Your task to perform on an android device: change the clock style Image 0: 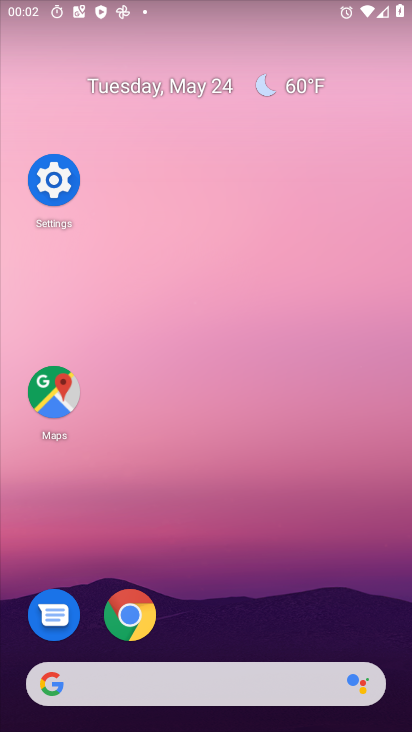
Step 0: drag from (224, 614) to (288, 92)
Your task to perform on an android device: change the clock style Image 1: 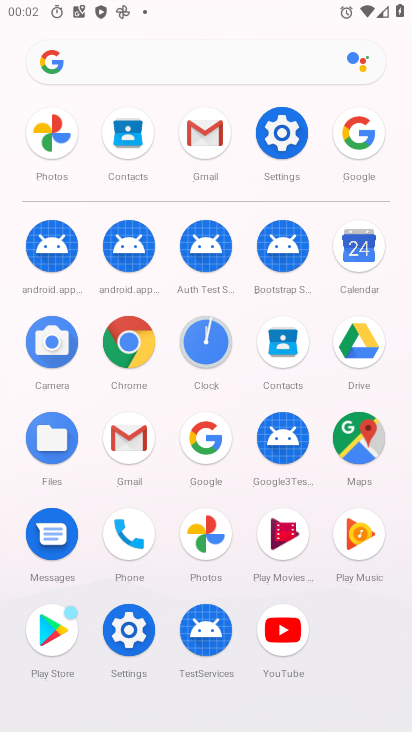
Step 1: click (207, 333)
Your task to perform on an android device: change the clock style Image 2: 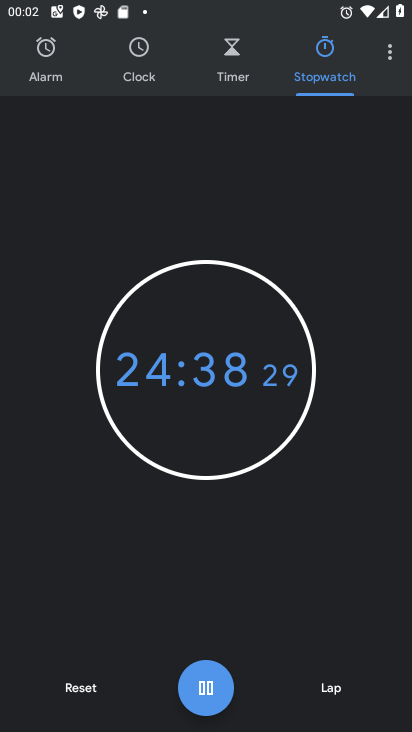
Step 2: click (386, 53)
Your task to perform on an android device: change the clock style Image 3: 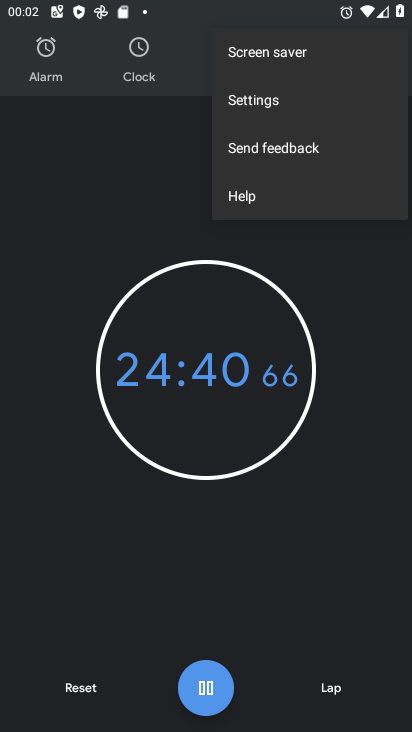
Step 3: click (292, 109)
Your task to perform on an android device: change the clock style Image 4: 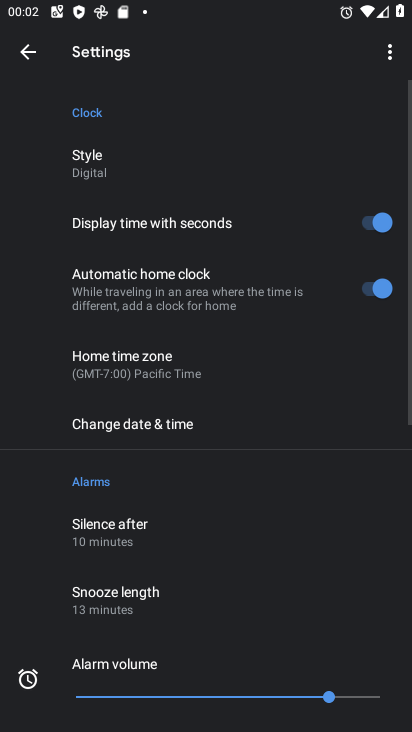
Step 4: click (141, 161)
Your task to perform on an android device: change the clock style Image 5: 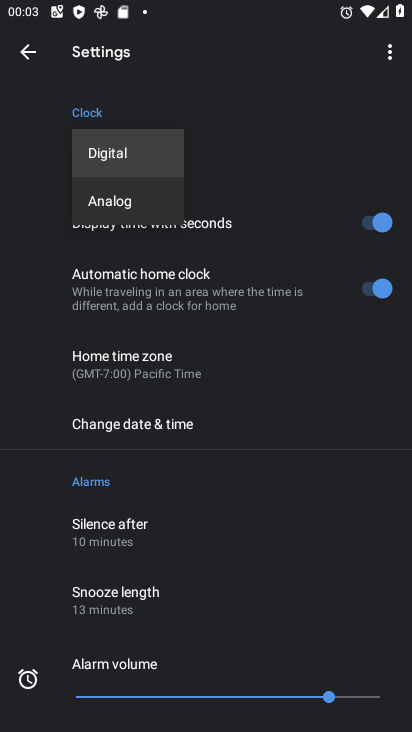
Step 5: click (117, 192)
Your task to perform on an android device: change the clock style Image 6: 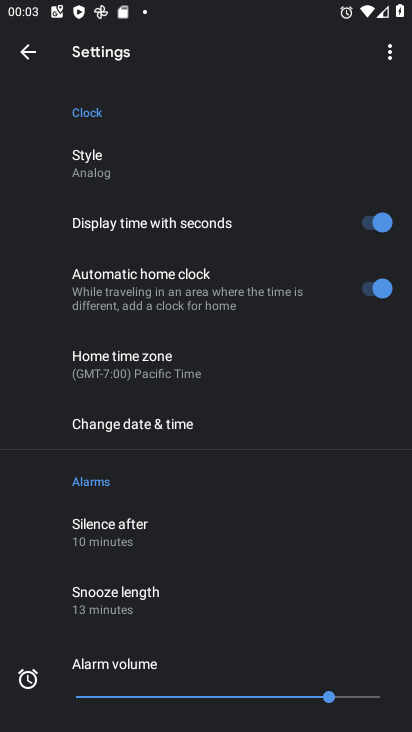
Step 6: task complete